Your task to perform on an android device: Is it going to rain today? Image 0: 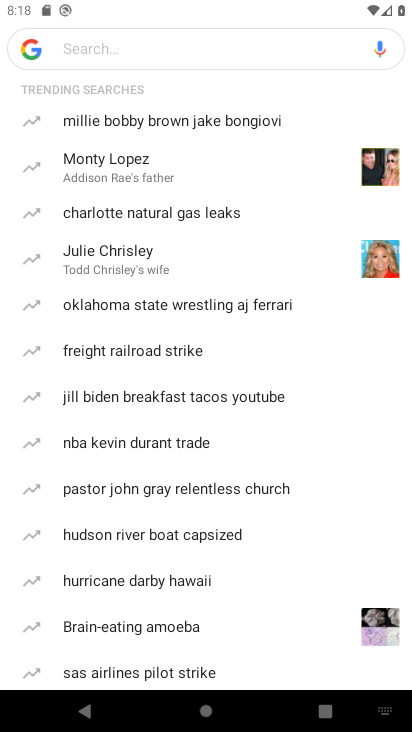
Step 0: press home button
Your task to perform on an android device: Is it going to rain today? Image 1: 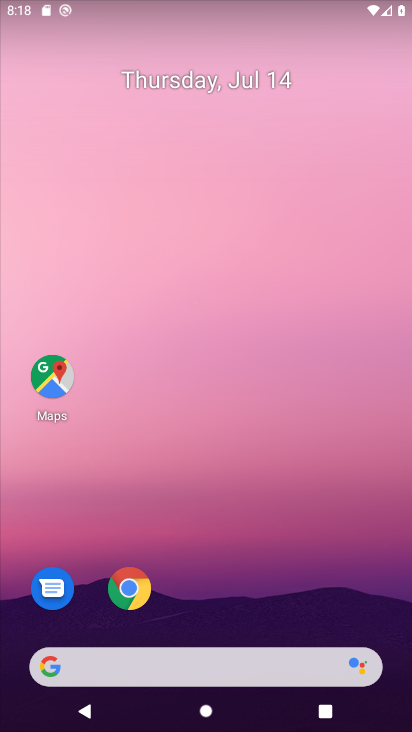
Step 1: click (210, 658)
Your task to perform on an android device: Is it going to rain today? Image 2: 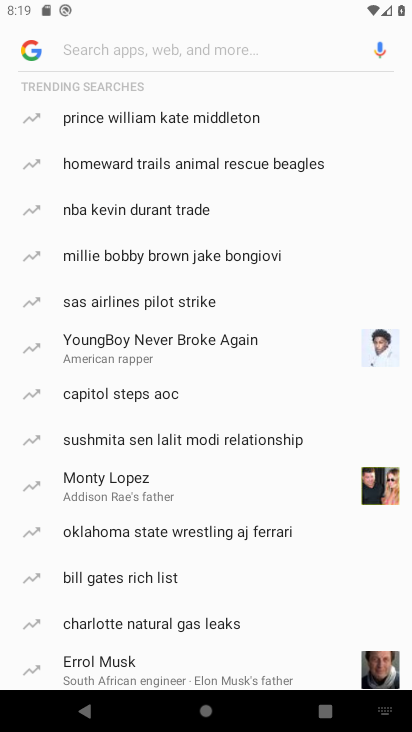
Step 2: type "weather"
Your task to perform on an android device: Is it going to rain today? Image 3: 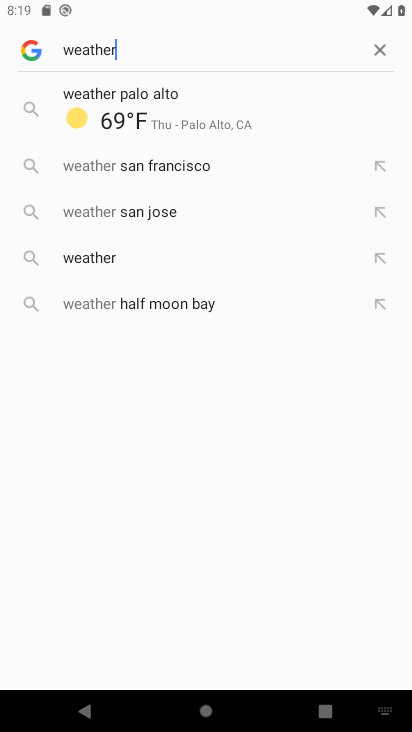
Step 3: click (219, 120)
Your task to perform on an android device: Is it going to rain today? Image 4: 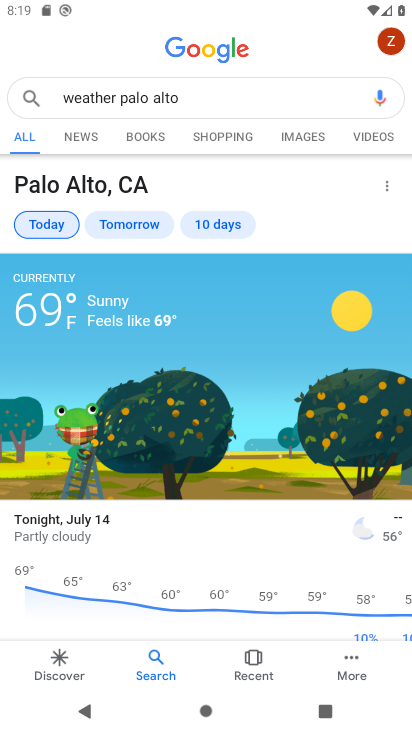
Step 4: task complete